Your task to perform on an android device: change the clock display to digital Image 0: 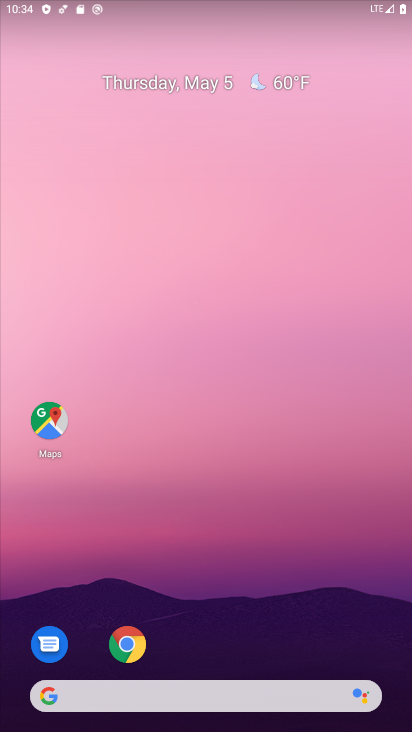
Step 0: drag from (361, 600) to (323, 133)
Your task to perform on an android device: change the clock display to digital Image 1: 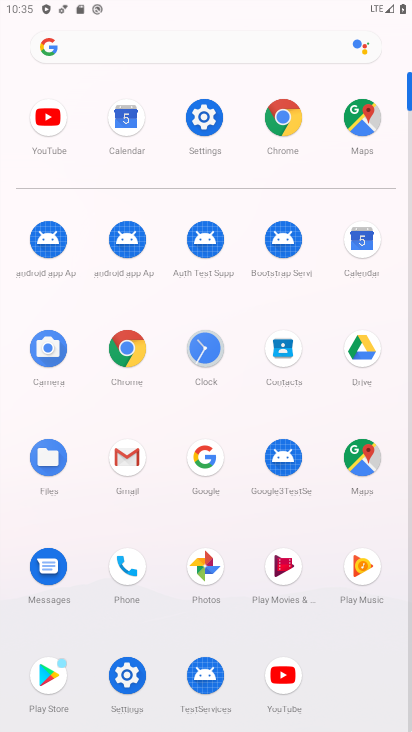
Step 1: click (206, 355)
Your task to perform on an android device: change the clock display to digital Image 2: 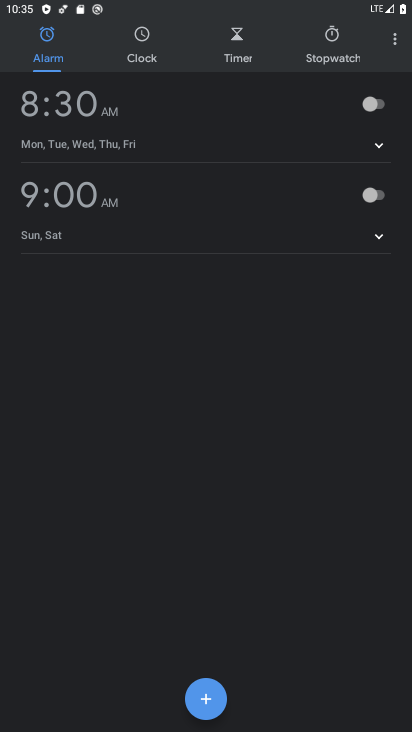
Step 2: click (393, 47)
Your task to perform on an android device: change the clock display to digital Image 3: 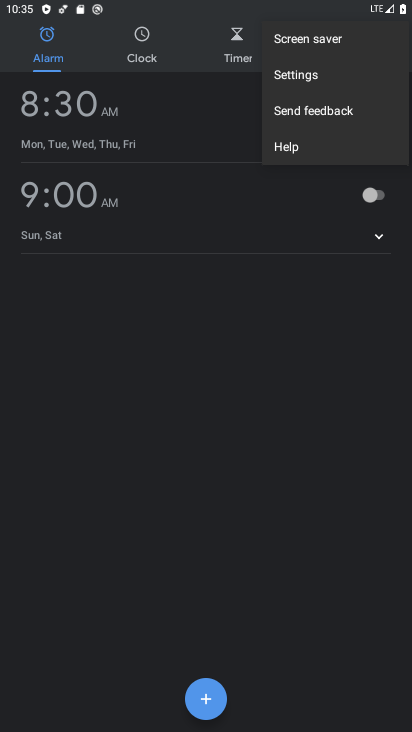
Step 3: click (318, 83)
Your task to perform on an android device: change the clock display to digital Image 4: 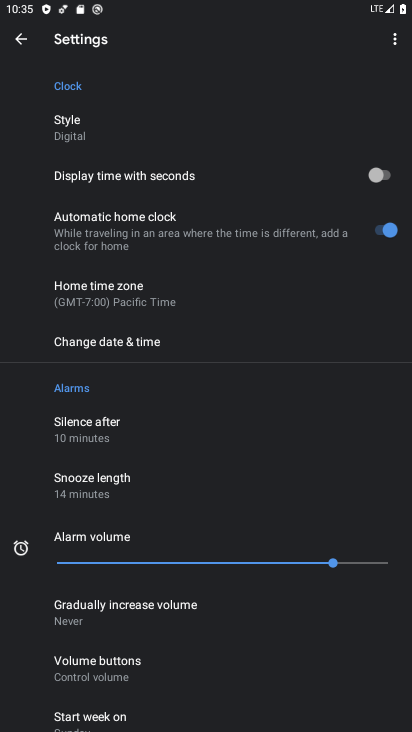
Step 4: task complete